Your task to perform on an android device: change the upload size in google photos Image 0: 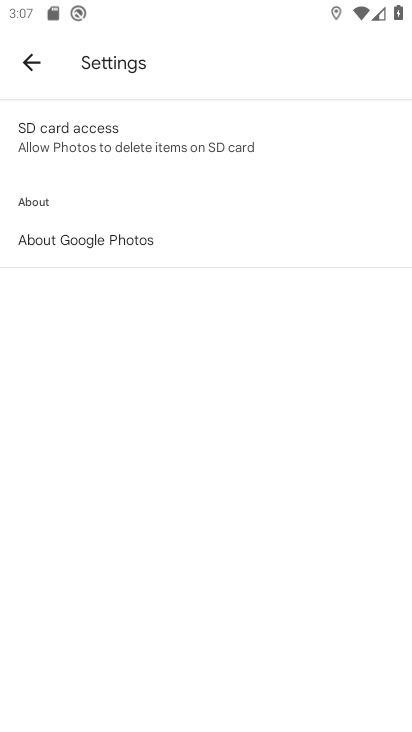
Step 0: press home button
Your task to perform on an android device: change the upload size in google photos Image 1: 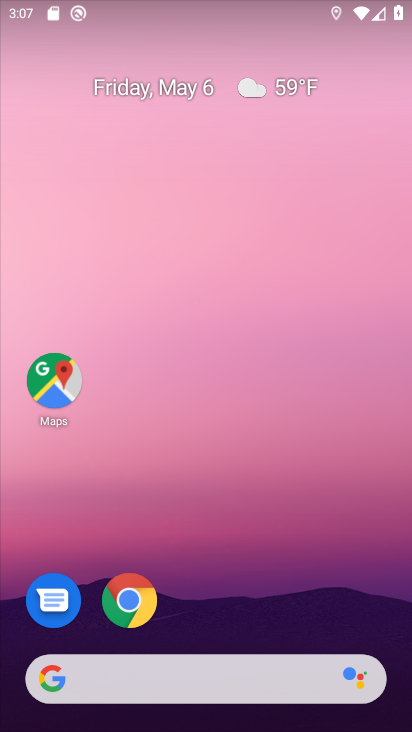
Step 1: drag from (235, 594) to (255, 14)
Your task to perform on an android device: change the upload size in google photos Image 2: 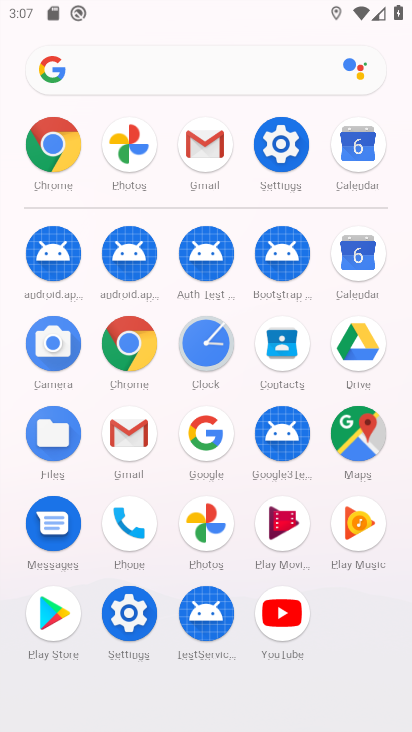
Step 2: click (208, 518)
Your task to perform on an android device: change the upload size in google photos Image 3: 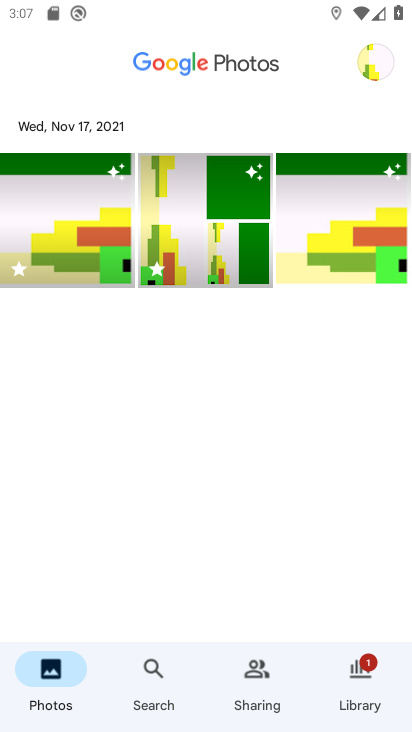
Step 3: click (371, 59)
Your task to perform on an android device: change the upload size in google photos Image 4: 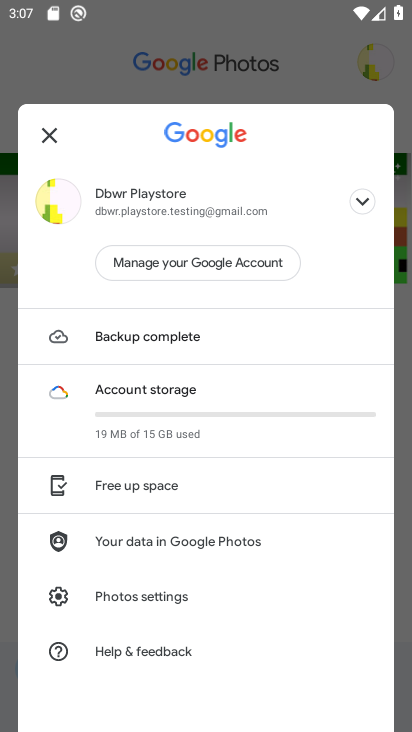
Step 4: click (166, 592)
Your task to perform on an android device: change the upload size in google photos Image 5: 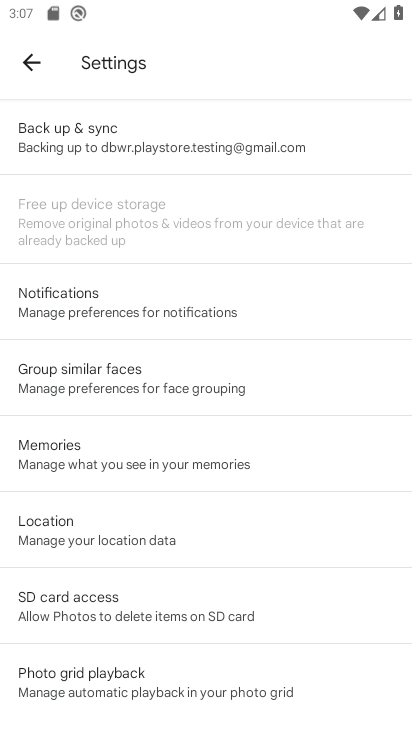
Step 5: drag from (150, 583) to (220, 620)
Your task to perform on an android device: change the upload size in google photos Image 6: 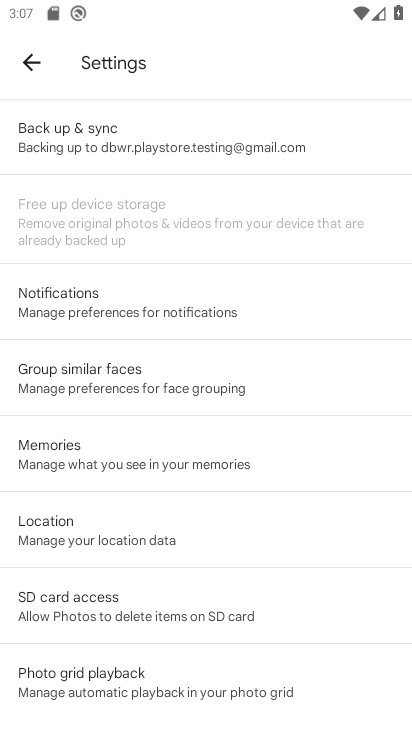
Step 6: click (124, 135)
Your task to perform on an android device: change the upload size in google photos Image 7: 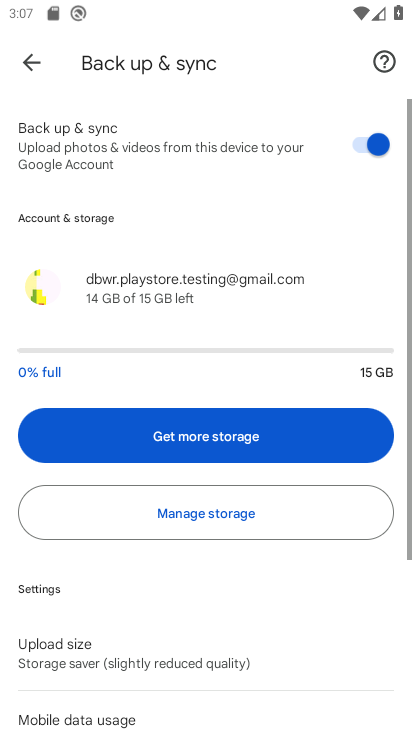
Step 7: drag from (162, 604) to (187, 405)
Your task to perform on an android device: change the upload size in google photos Image 8: 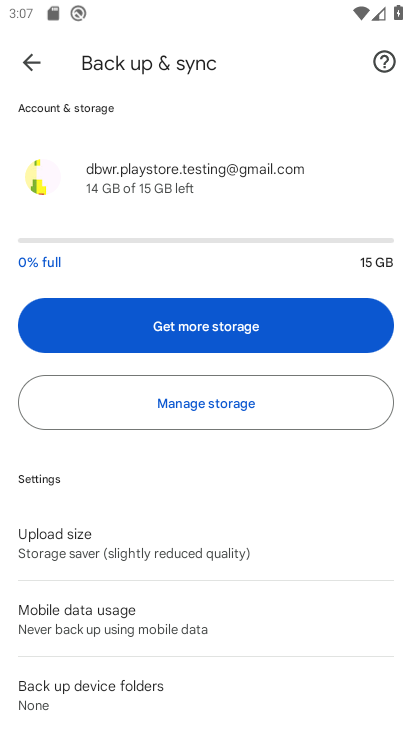
Step 8: click (114, 548)
Your task to perform on an android device: change the upload size in google photos Image 9: 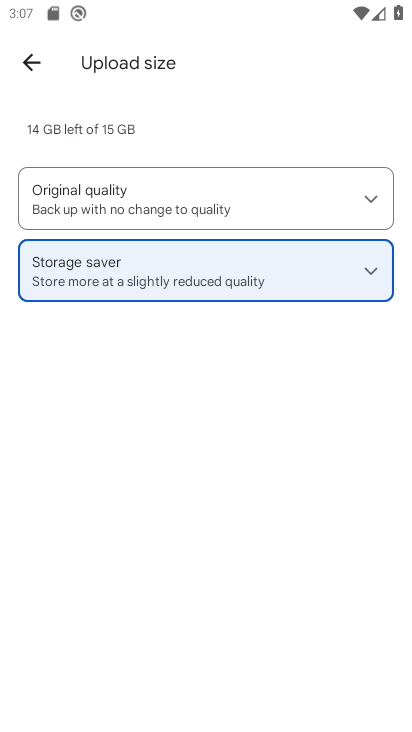
Step 9: click (109, 207)
Your task to perform on an android device: change the upload size in google photos Image 10: 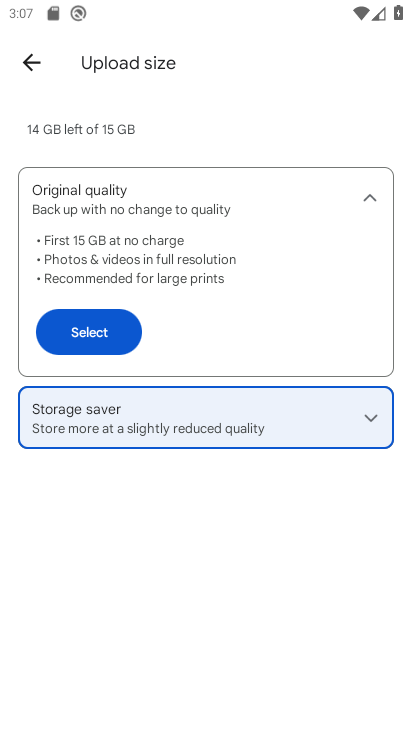
Step 10: click (86, 331)
Your task to perform on an android device: change the upload size in google photos Image 11: 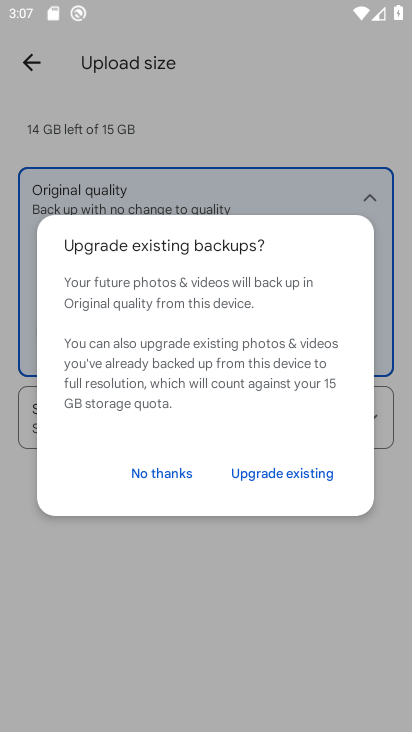
Step 11: click (163, 471)
Your task to perform on an android device: change the upload size in google photos Image 12: 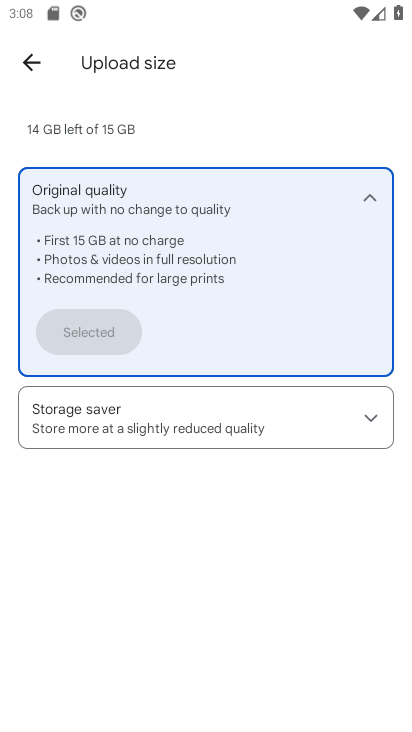
Step 12: task complete